Your task to perform on an android device: Open battery settings Image 0: 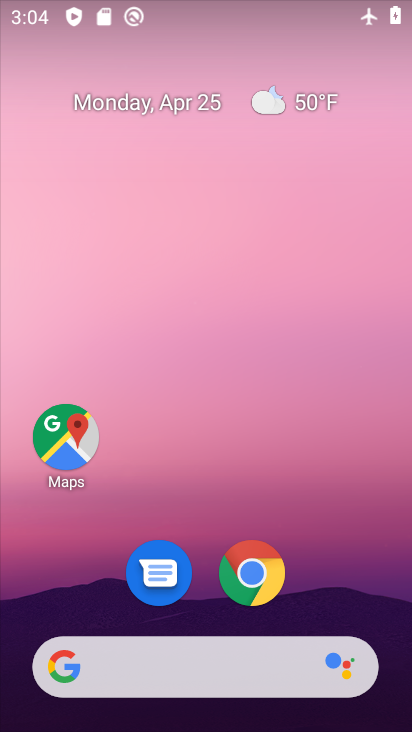
Step 0: drag from (391, 448) to (323, 40)
Your task to perform on an android device: Open battery settings Image 1: 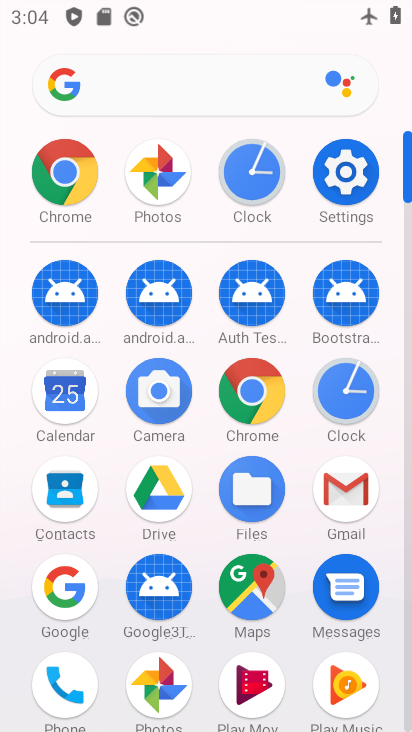
Step 1: click (370, 182)
Your task to perform on an android device: Open battery settings Image 2: 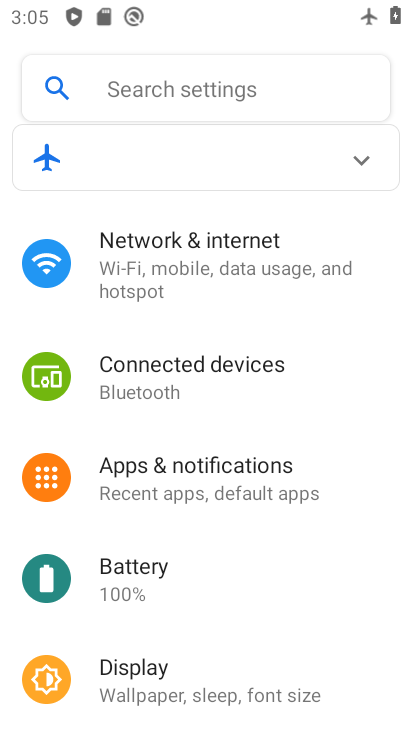
Step 2: drag from (252, 556) to (223, 192)
Your task to perform on an android device: Open battery settings Image 3: 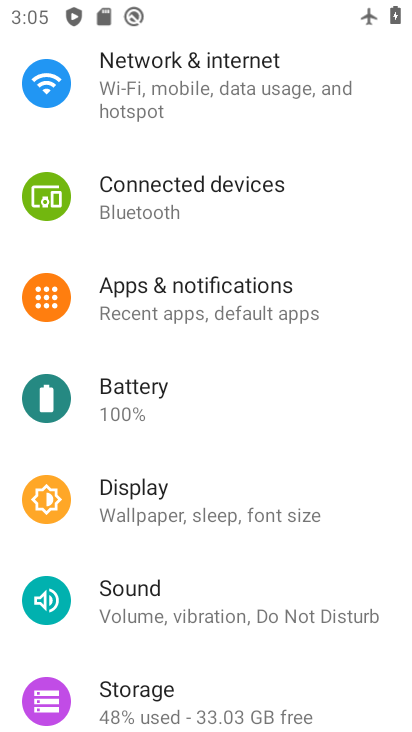
Step 3: click (148, 399)
Your task to perform on an android device: Open battery settings Image 4: 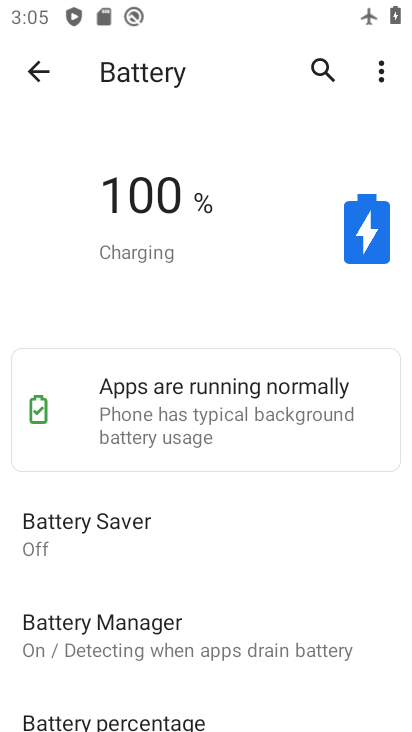
Step 4: task complete